Your task to perform on an android device: Go to accessibility settings Image 0: 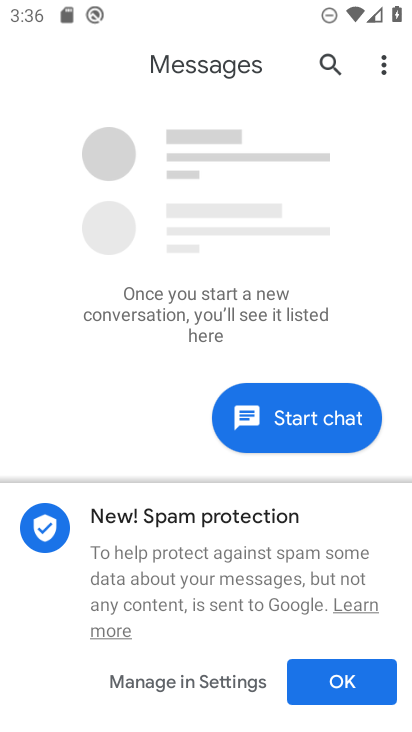
Step 0: press home button
Your task to perform on an android device: Go to accessibility settings Image 1: 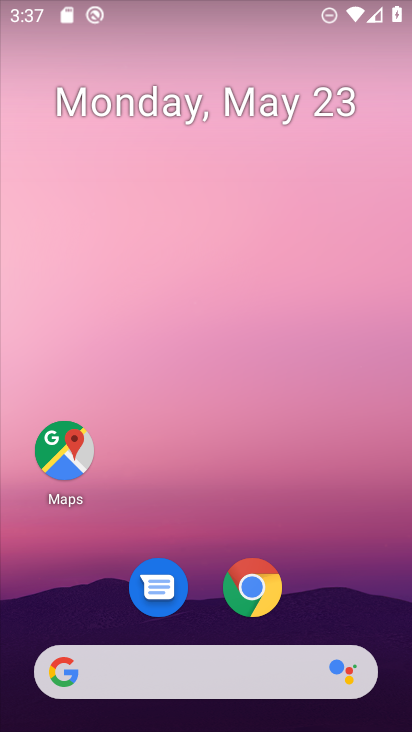
Step 1: drag from (208, 613) to (234, 67)
Your task to perform on an android device: Go to accessibility settings Image 2: 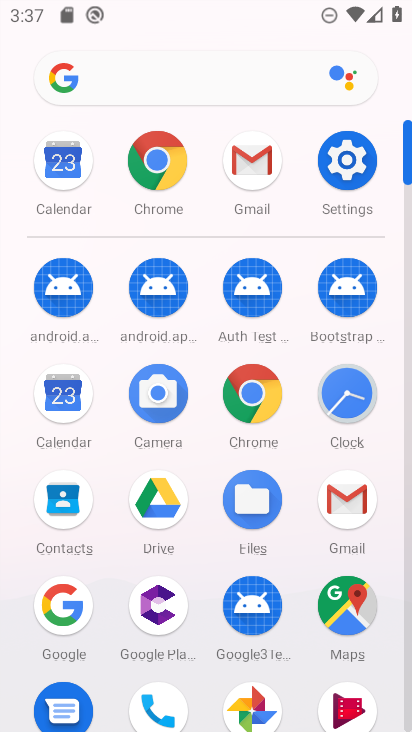
Step 2: click (340, 167)
Your task to perform on an android device: Go to accessibility settings Image 3: 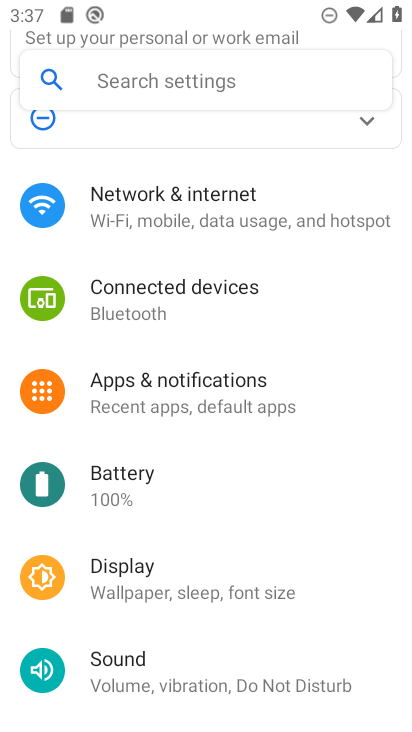
Step 3: drag from (205, 582) to (202, 183)
Your task to perform on an android device: Go to accessibility settings Image 4: 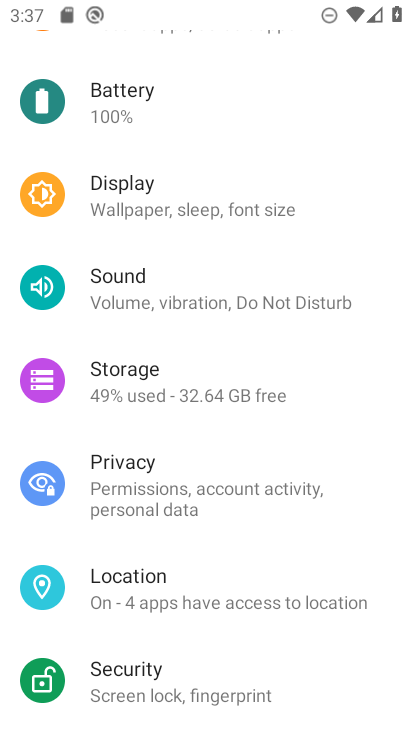
Step 4: drag from (178, 622) to (180, 366)
Your task to perform on an android device: Go to accessibility settings Image 5: 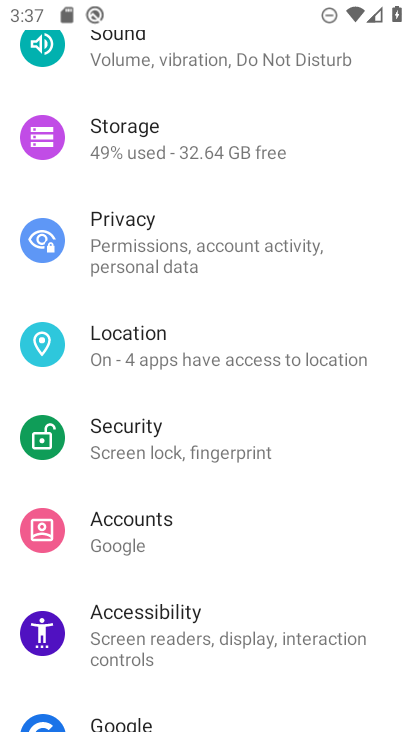
Step 5: click (160, 621)
Your task to perform on an android device: Go to accessibility settings Image 6: 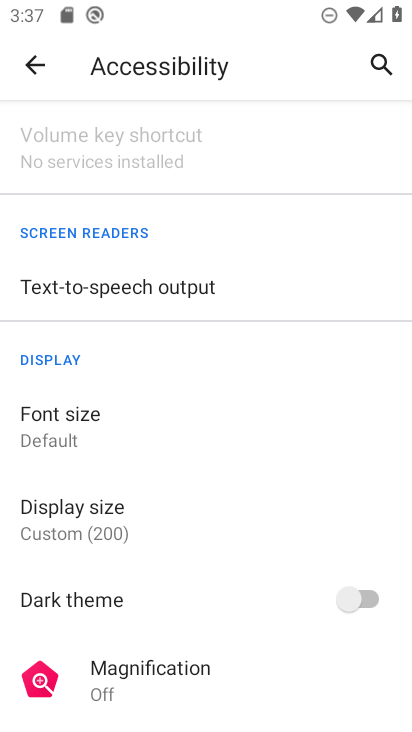
Step 6: task complete